Your task to perform on an android device: turn on javascript in the chrome app Image 0: 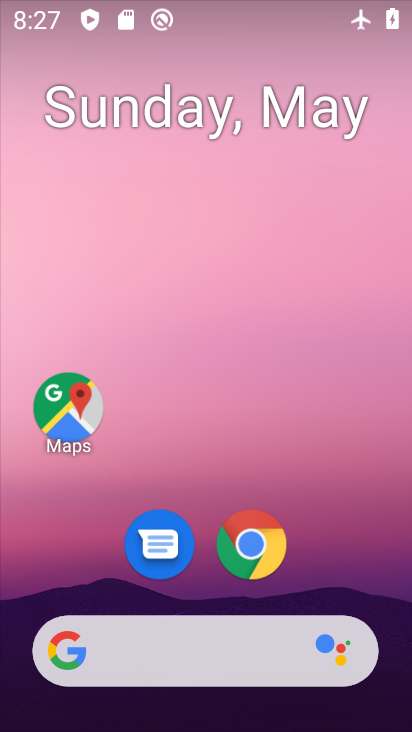
Step 0: drag from (338, 569) to (249, 24)
Your task to perform on an android device: turn on javascript in the chrome app Image 1: 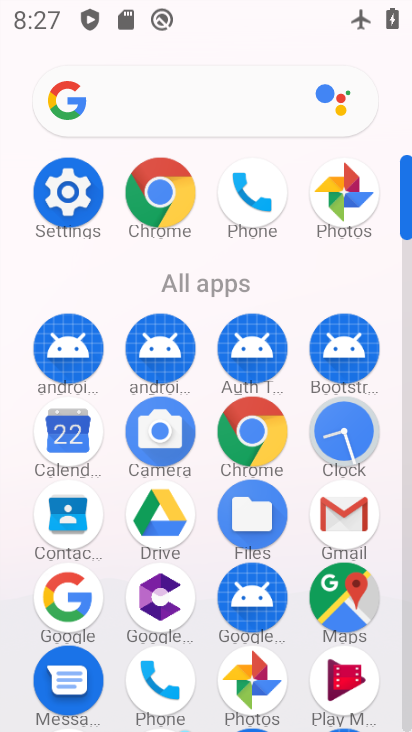
Step 1: drag from (11, 564) to (7, 221)
Your task to perform on an android device: turn on javascript in the chrome app Image 2: 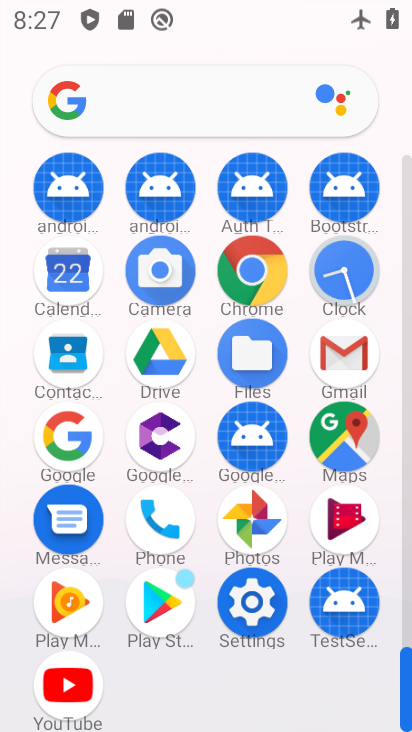
Step 2: click (249, 269)
Your task to perform on an android device: turn on javascript in the chrome app Image 3: 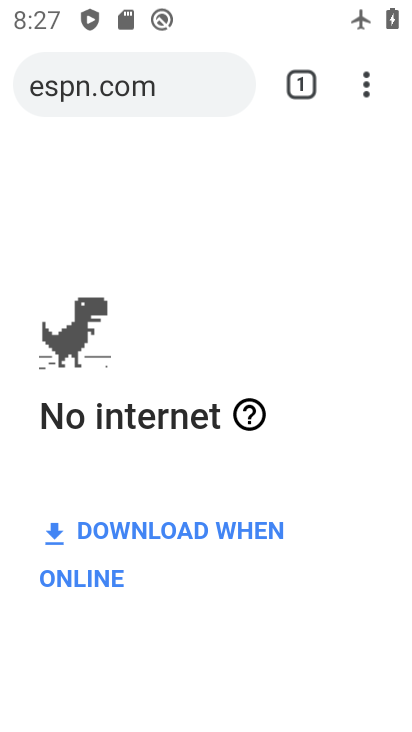
Step 3: drag from (360, 78) to (118, 596)
Your task to perform on an android device: turn on javascript in the chrome app Image 4: 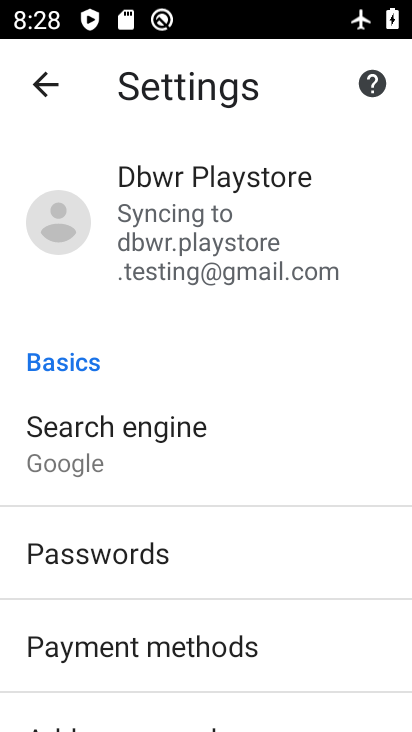
Step 4: drag from (235, 641) to (276, 164)
Your task to perform on an android device: turn on javascript in the chrome app Image 5: 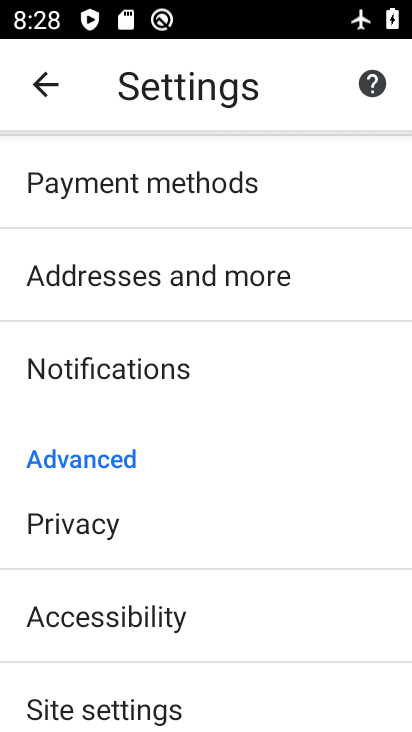
Step 5: click (160, 692)
Your task to perform on an android device: turn on javascript in the chrome app Image 6: 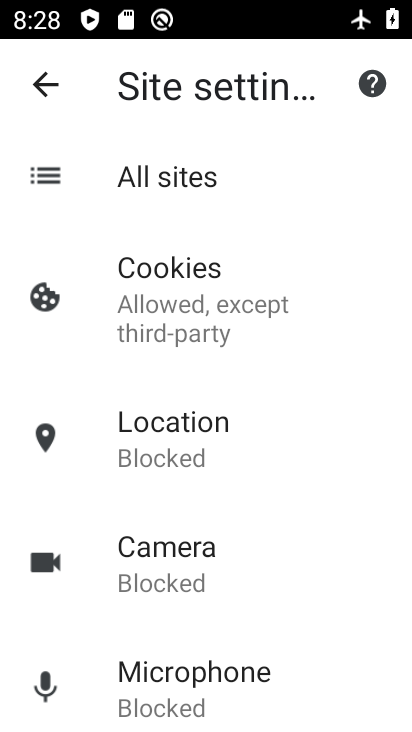
Step 6: drag from (280, 548) to (288, 193)
Your task to perform on an android device: turn on javascript in the chrome app Image 7: 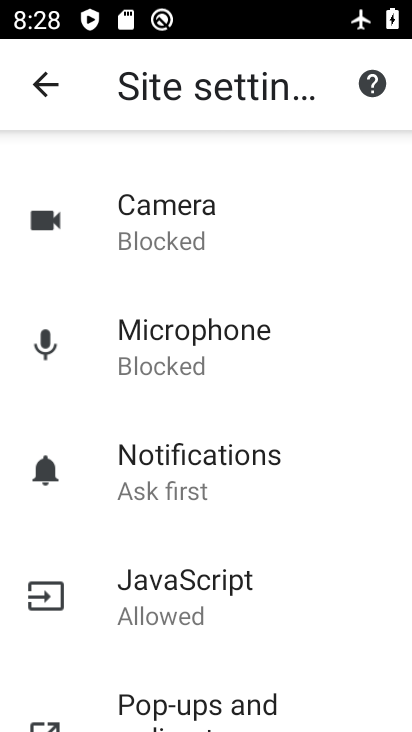
Step 7: click (176, 622)
Your task to perform on an android device: turn on javascript in the chrome app Image 8: 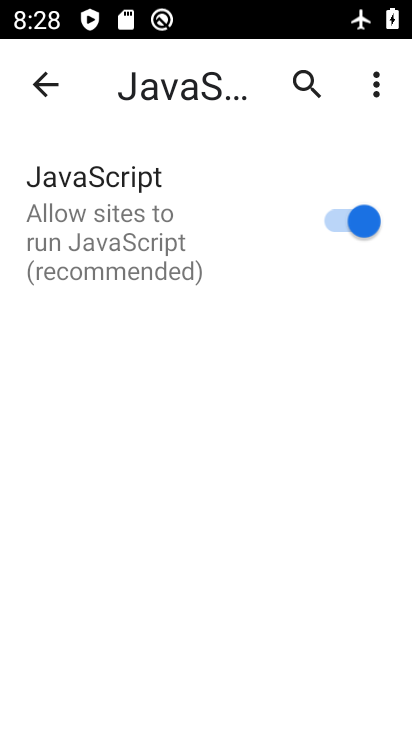
Step 8: task complete